Your task to perform on an android device: add a contact in the contacts app Image 0: 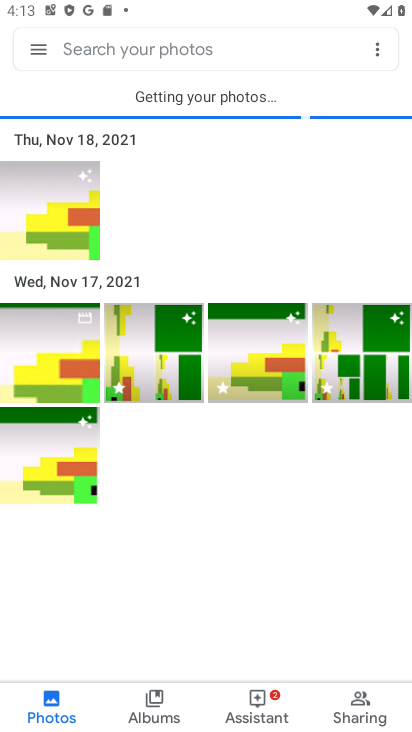
Step 0: press home button
Your task to perform on an android device: add a contact in the contacts app Image 1: 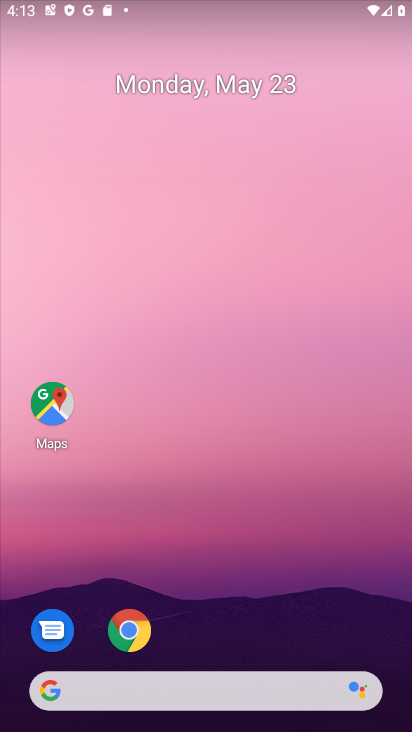
Step 1: drag from (210, 646) to (217, 74)
Your task to perform on an android device: add a contact in the contacts app Image 2: 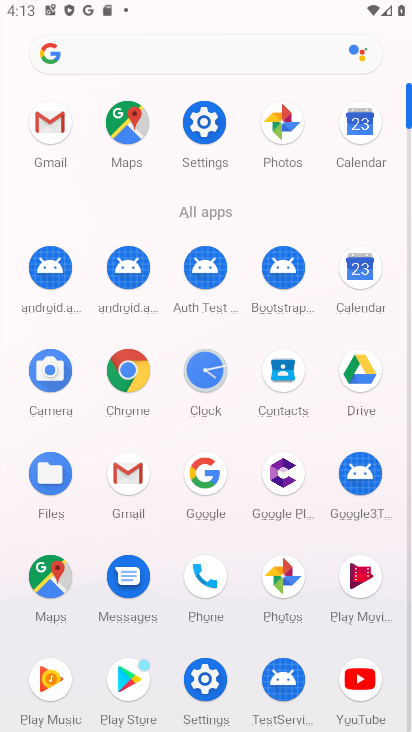
Step 2: click (280, 367)
Your task to perform on an android device: add a contact in the contacts app Image 3: 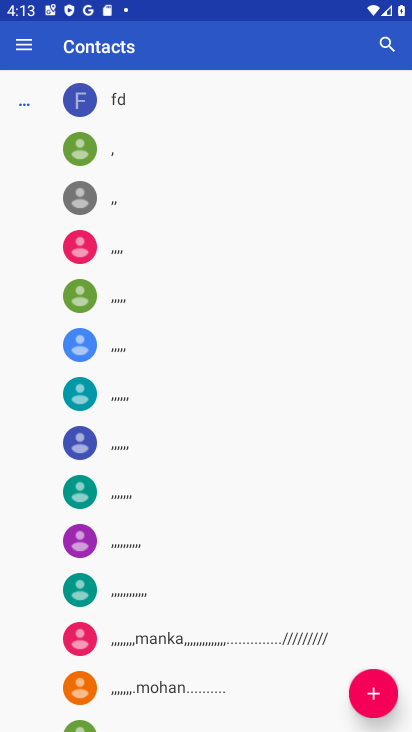
Step 3: click (371, 687)
Your task to perform on an android device: add a contact in the contacts app Image 4: 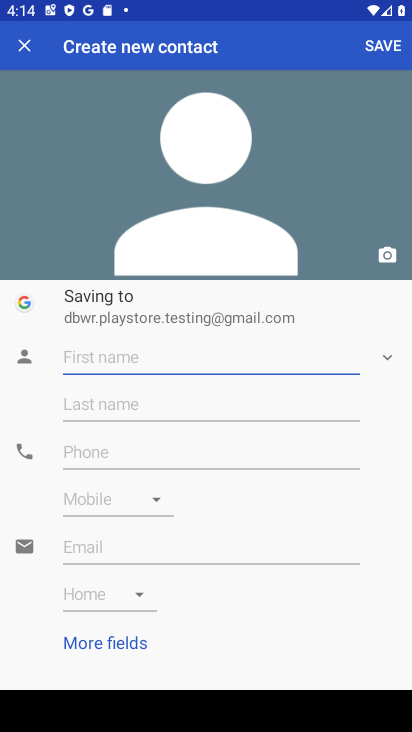
Step 4: type "gdgrhgh"
Your task to perform on an android device: add a contact in the contacts app Image 5: 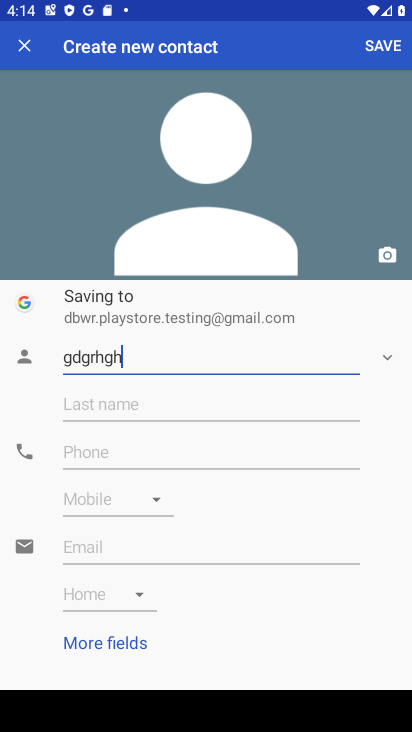
Step 5: click (382, 45)
Your task to perform on an android device: add a contact in the contacts app Image 6: 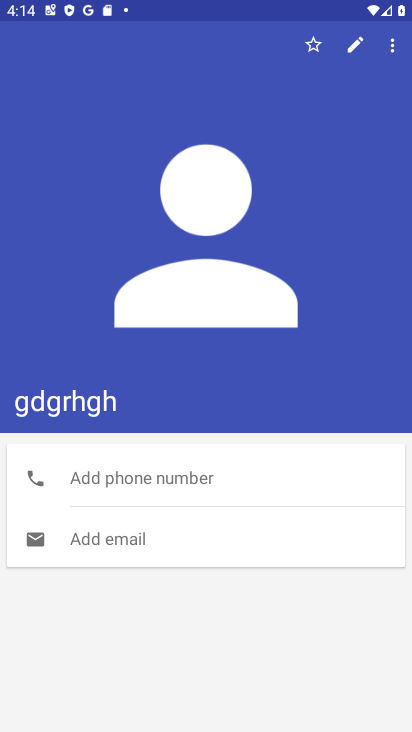
Step 6: press home button
Your task to perform on an android device: add a contact in the contacts app Image 7: 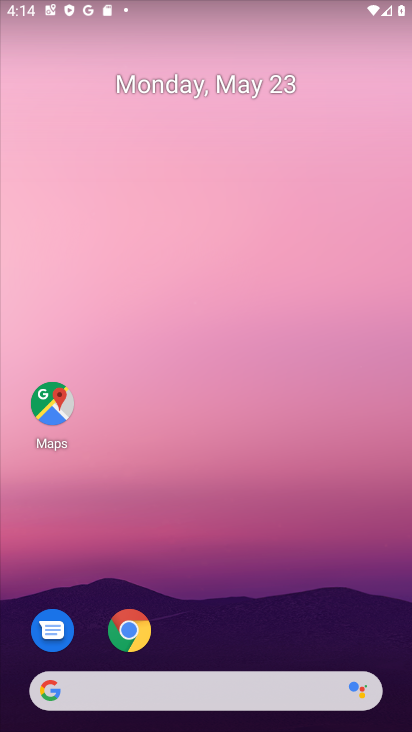
Step 7: drag from (215, 652) to (215, 23)
Your task to perform on an android device: add a contact in the contacts app Image 8: 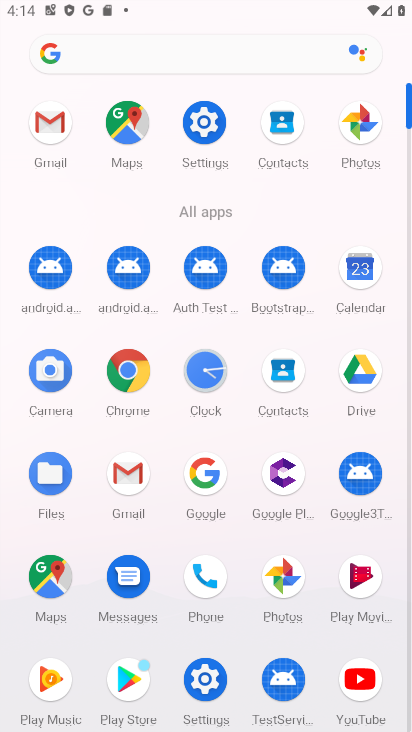
Step 8: click (281, 365)
Your task to perform on an android device: add a contact in the contacts app Image 9: 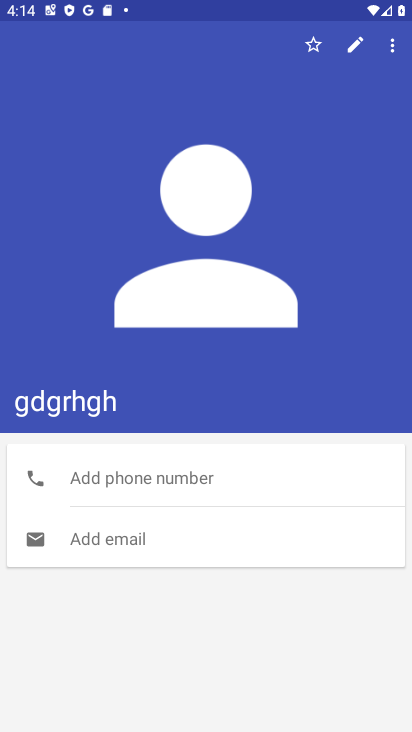
Step 9: task complete